Your task to perform on an android device: see creations saved in the google photos Image 0: 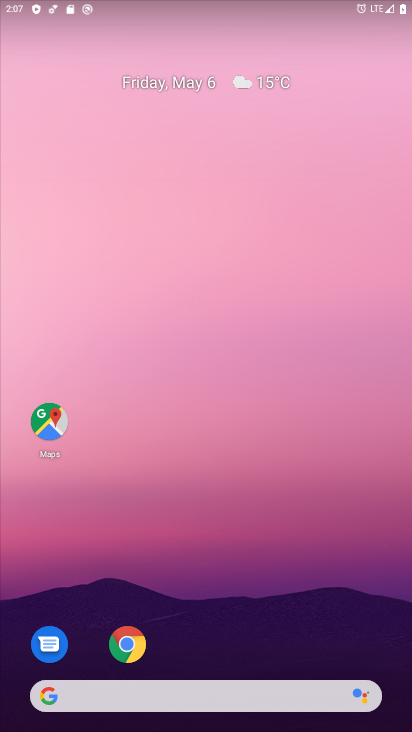
Step 0: drag from (231, 615) to (172, 270)
Your task to perform on an android device: see creations saved in the google photos Image 1: 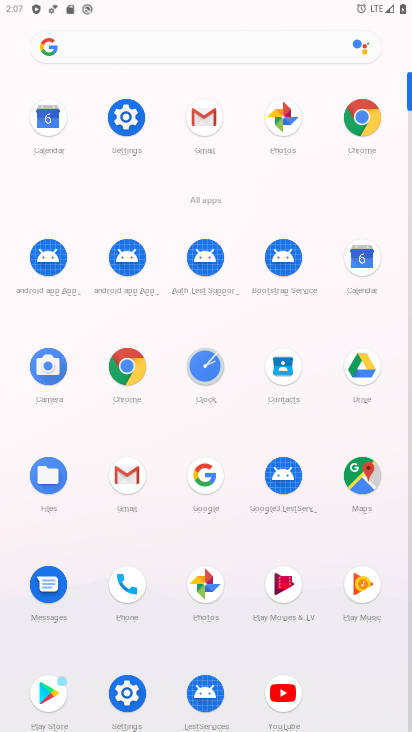
Step 1: click (292, 127)
Your task to perform on an android device: see creations saved in the google photos Image 2: 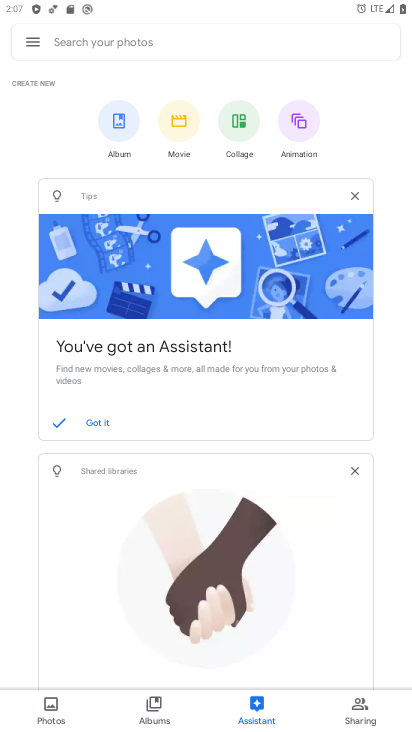
Step 2: click (94, 48)
Your task to perform on an android device: see creations saved in the google photos Image 3: 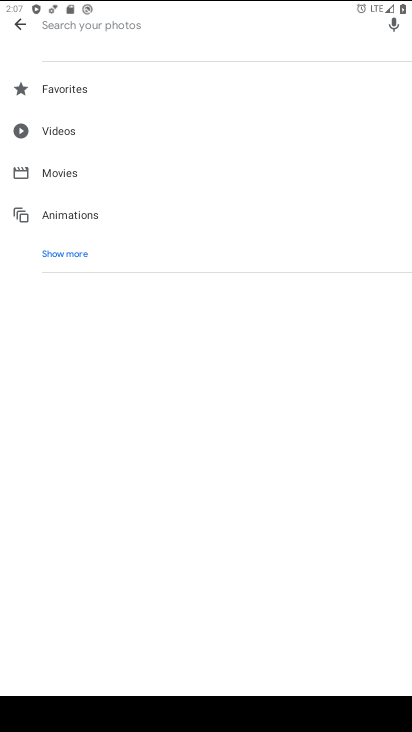
Step 3: click (71, 255)
Your task to perform on an android device: see creations saved in the google photos Image 4: 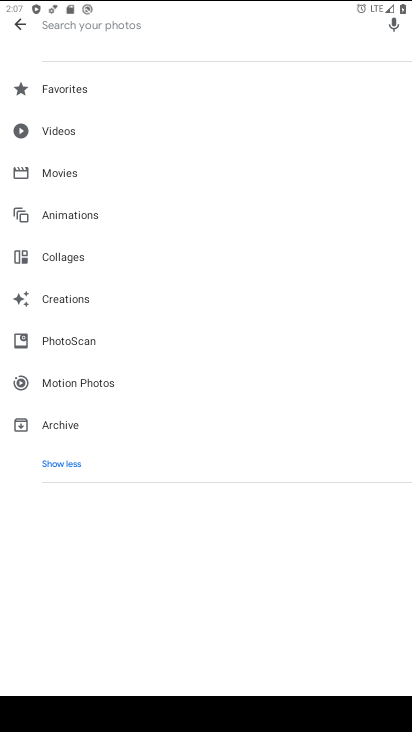
Step 4: click (74, 296)
Your task to perform on an android device: see creations saved in the google photos Image 5: 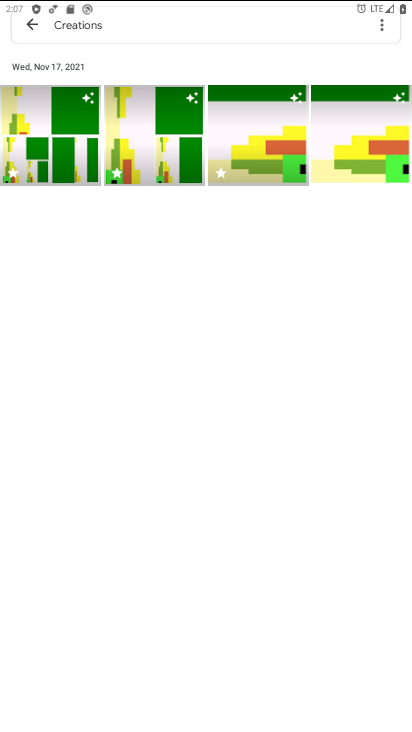
Step 5: task complete